Your task to perform on an android device: change timer sound Image 0: 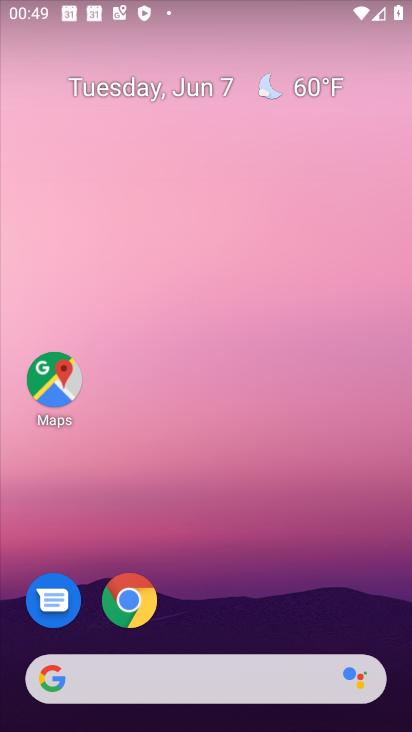
Step 0: drag from (201, 726) to (192, 153)
Your task to perform on an android device: change timer sound Image 1: 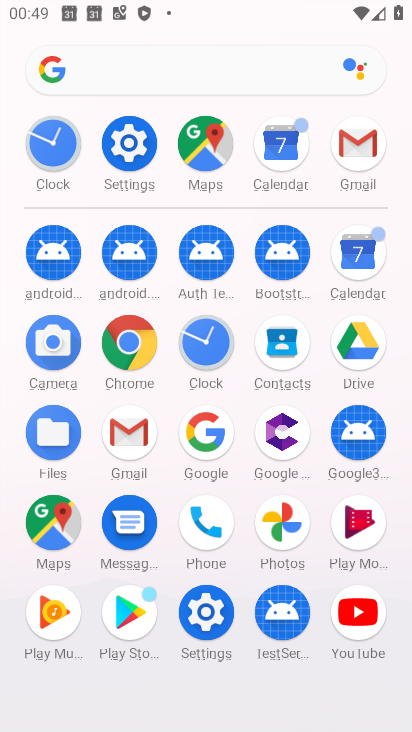
Step 1: click (215, 335)
Your task to perform on an android device: change timer sound Image 2: 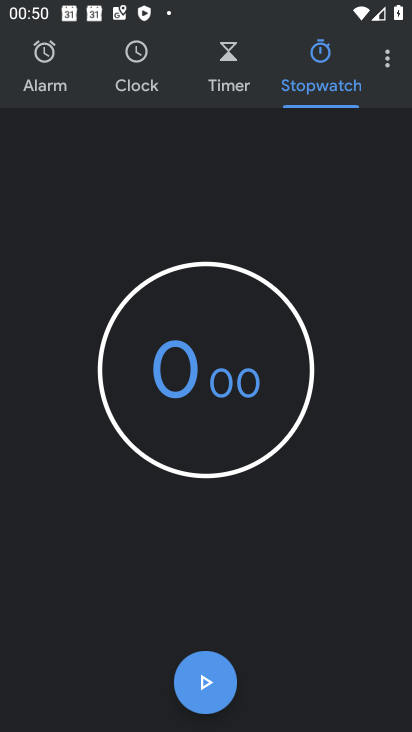
Step 2: click (389, 66)
Your task to perform on an android device: change timer sound Image 3: 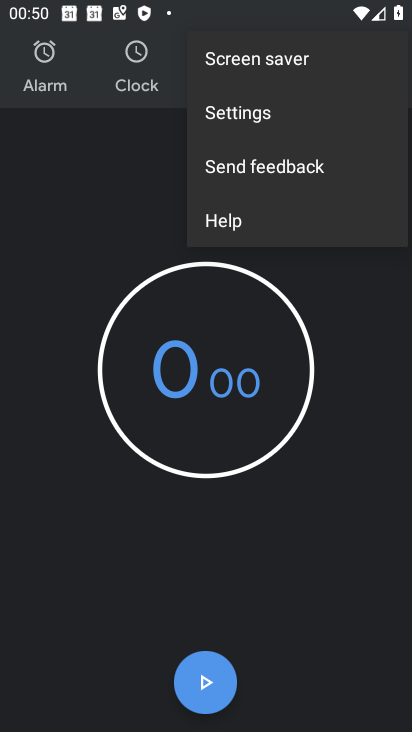
Step 3: click (258, 116)
Your task to perform on an android device: change timer sound Image 4: 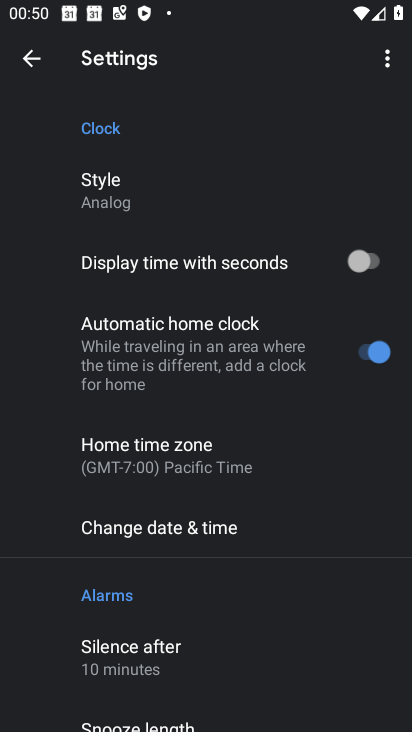
Step 4: drag from (181, 652) to (173, 341)
Your task to perform on an android device: change timer sound Image 5: 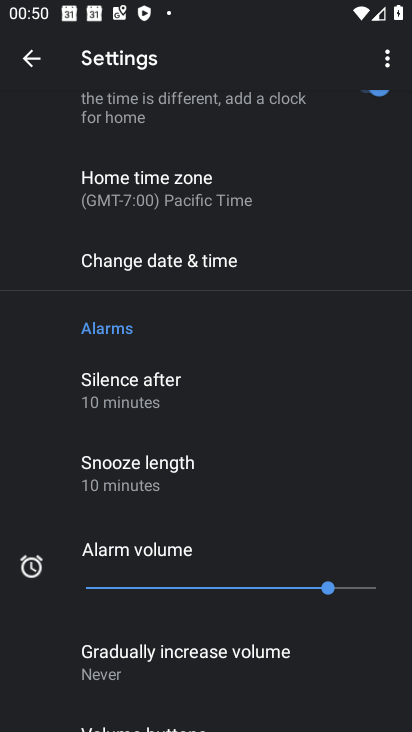
Step 5: drag from (220, 689) to (221, 323)
Your task to perform on an android device: change timer sound Image 6: 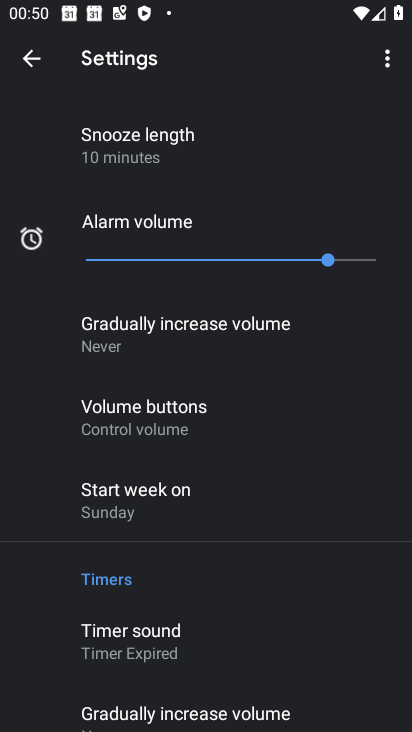
Step 6: click (121, 639)
Your task to perform on an android device: change timer sound Image 7: 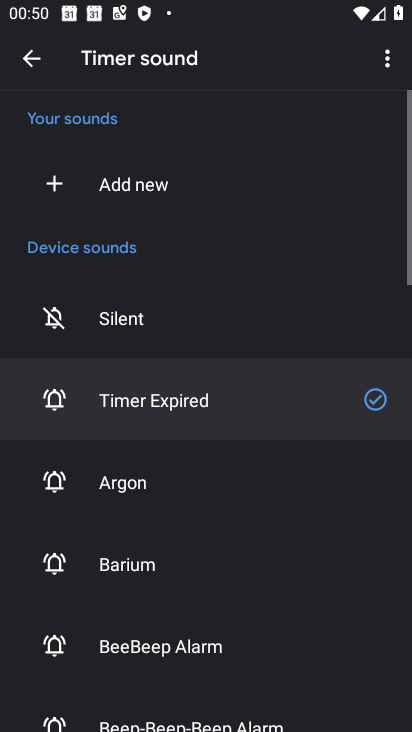
Step 7: click (128, 638)
Your task to perform on an android device: change timer sound Image 8: 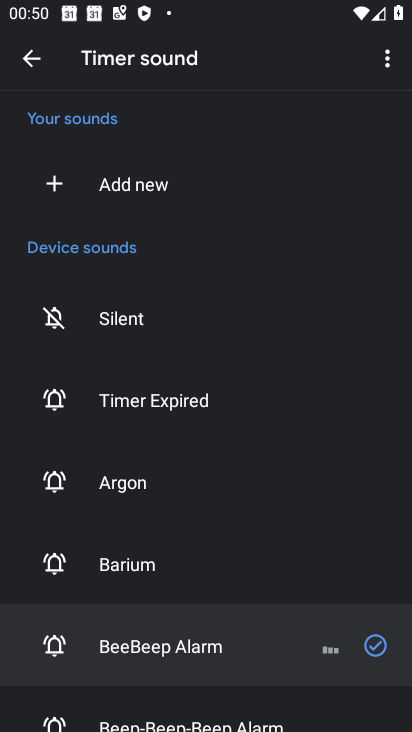
Step 8: task complete